Your task to perform on an android device: Open Wikipedia Image 0: 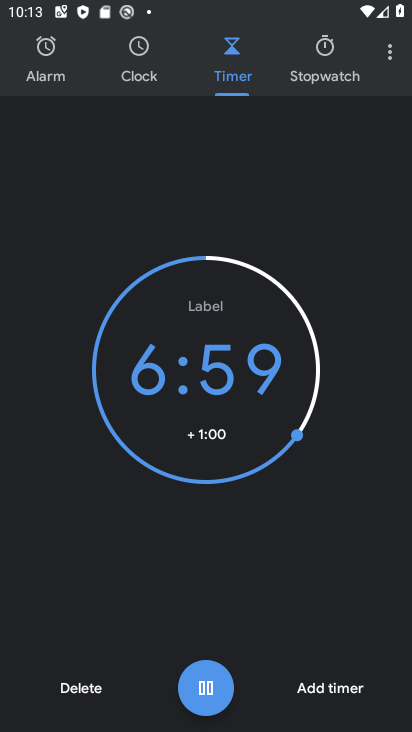
Step 0: press home button
Your task to perform on an android device: Open Wikipedia Image 1: 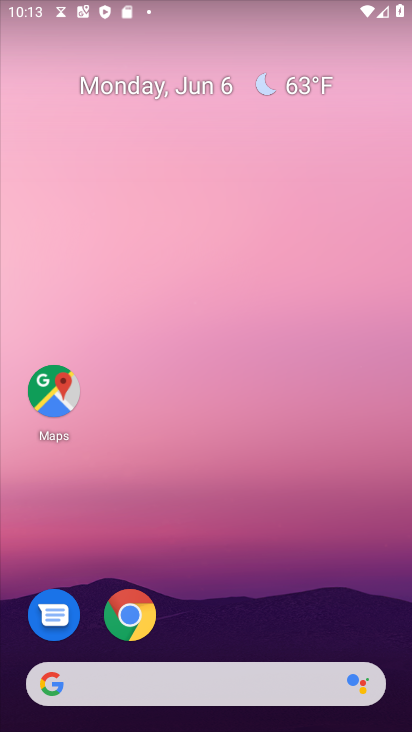
Step 1: click (133, 606)
Your task to perform on an android device: Open Wikipedia Image 2: 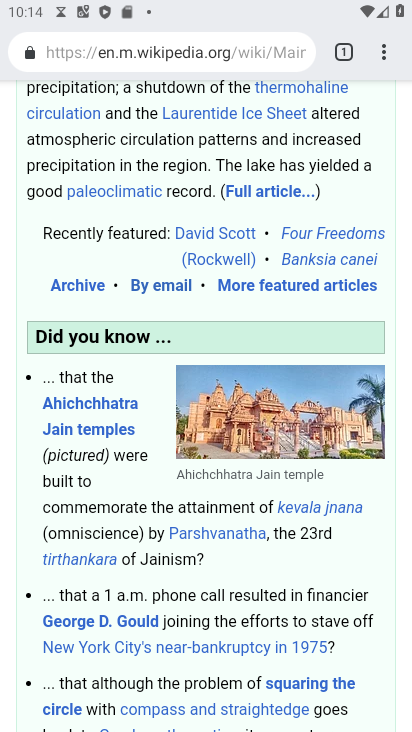
Step 2: task complete